Your task to perform on an android device: add a contact Image 0: 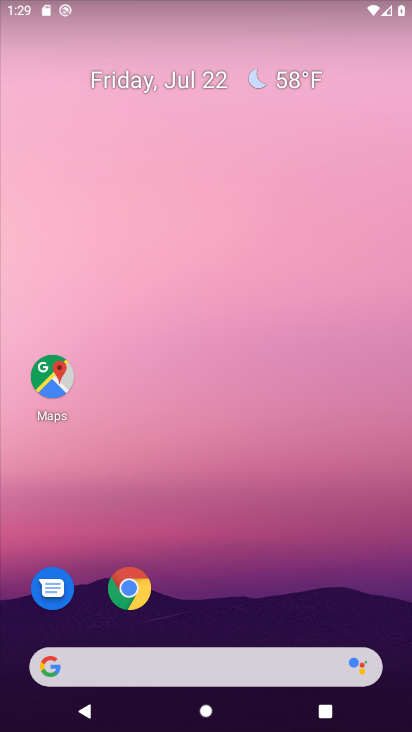
Step 0: drag from (236, 551) to (128, 79)
Your task to perform on an android device: add a contact Image 1: 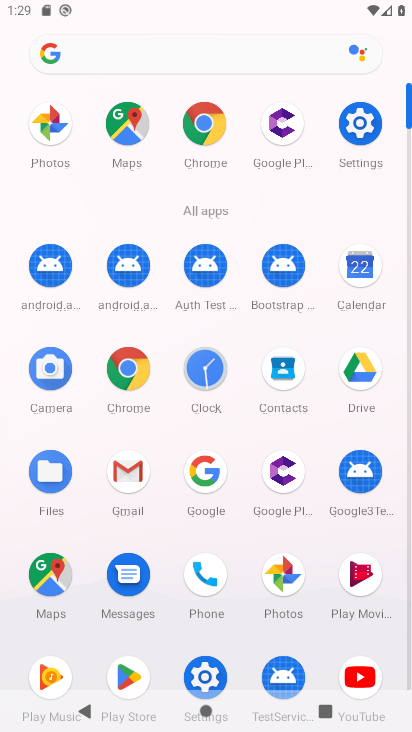
Step 1: drag from (227, 594) to (228, 219)
Your task to perform on an android device: add a contact Image 2: 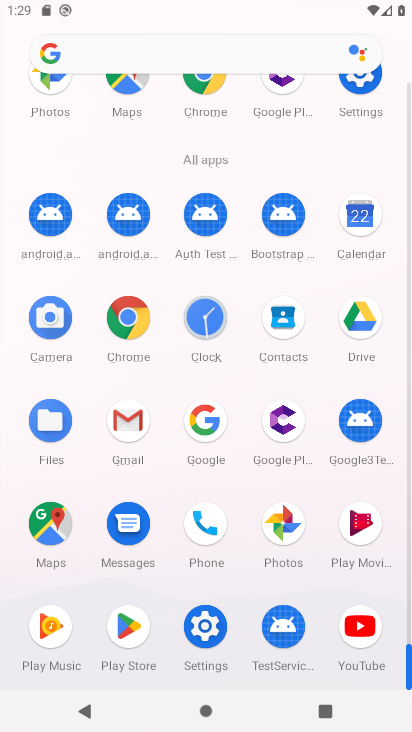
Step 2: click (291, 306)
Your task to perform on an android device: add a contact Image 3: 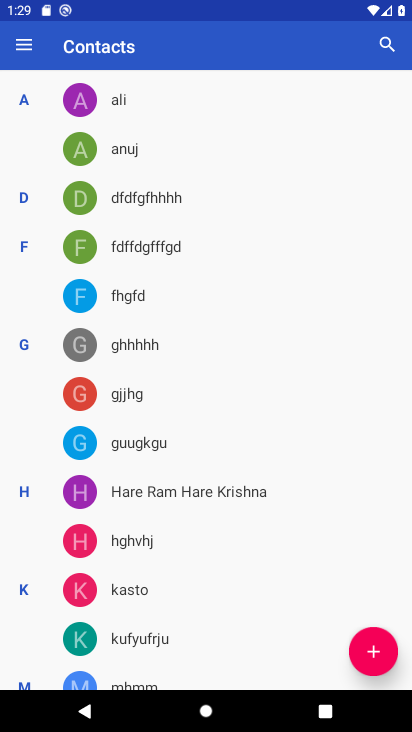
Step 3: click (386, 647)
Your task to perform on an android device: add a contact Image 4: 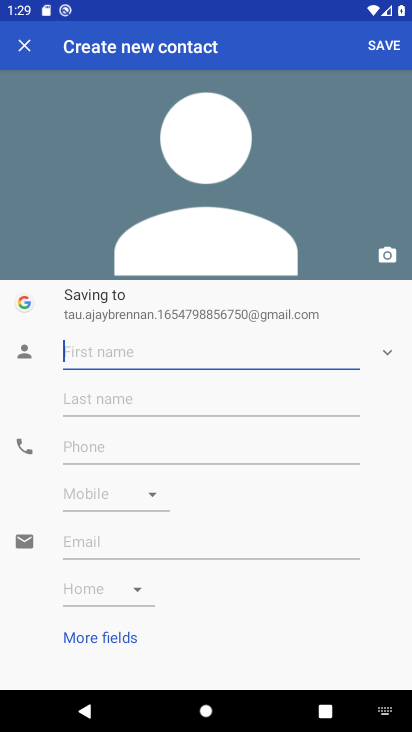
Step 4: type "dddrrr"
Your task to perform on an android device: add a contact Image 5: 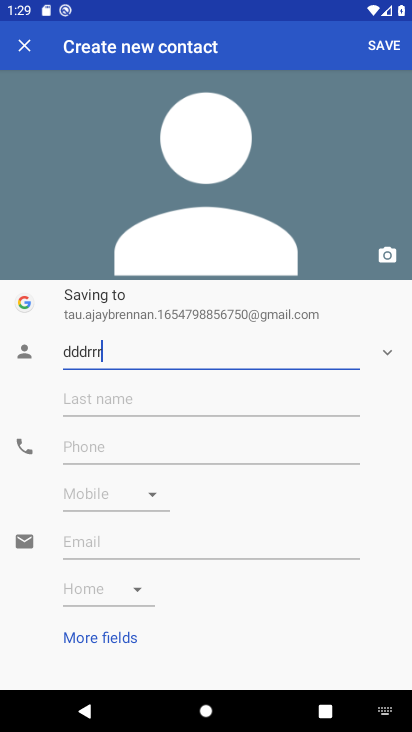
Step 5: click (270, 456)
Your task to perform on an android device: add a contact Image 6: 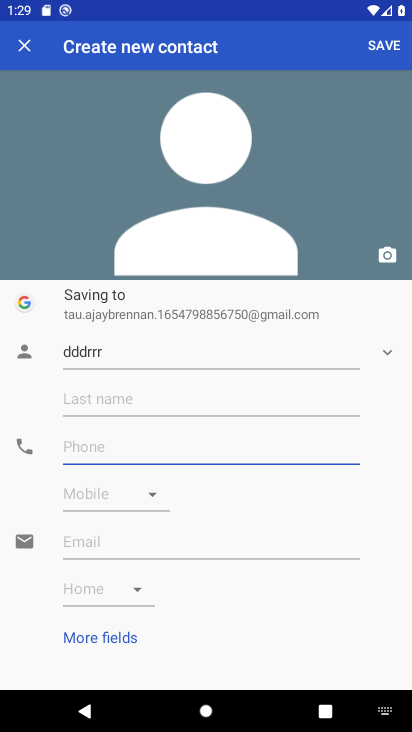
Step 6: type "1112222"
Your task to perform on an android device: add a contact Image 7: 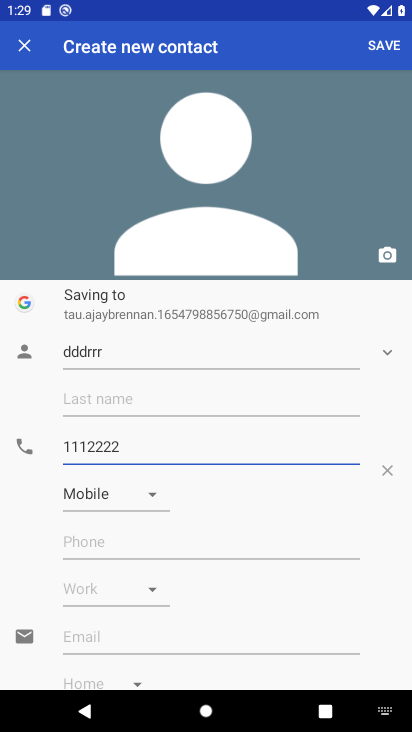
Step 7: click (387, 43)
Your task to perform on an android device: add a contact Image 8: 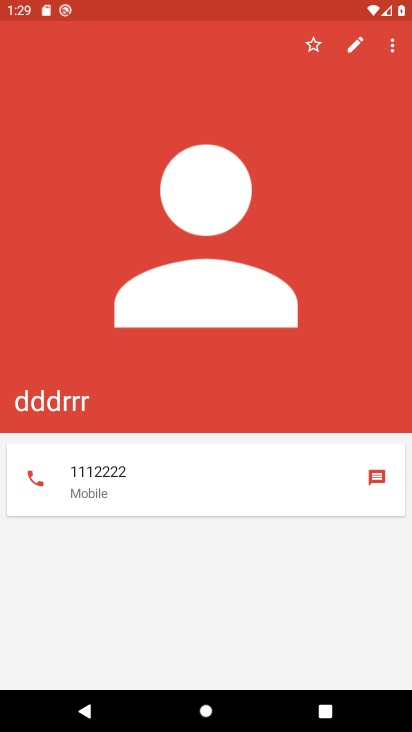
Step 8: task complete